Your task to perform on an android device: Go to settings Image 0: 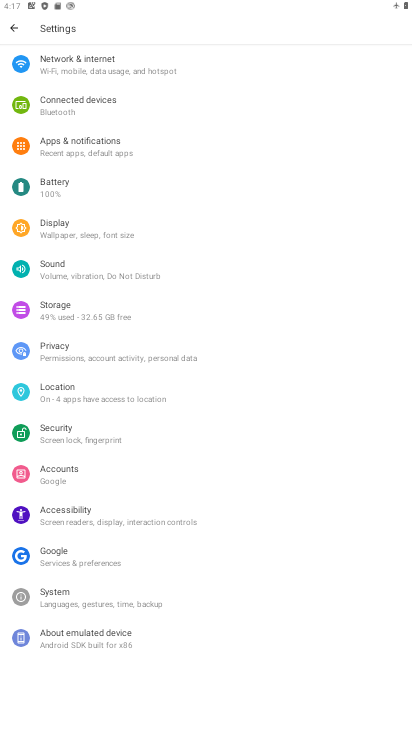
Step 0: task complete